Your task to perform on an android device: When is my next meeting? Image 0: 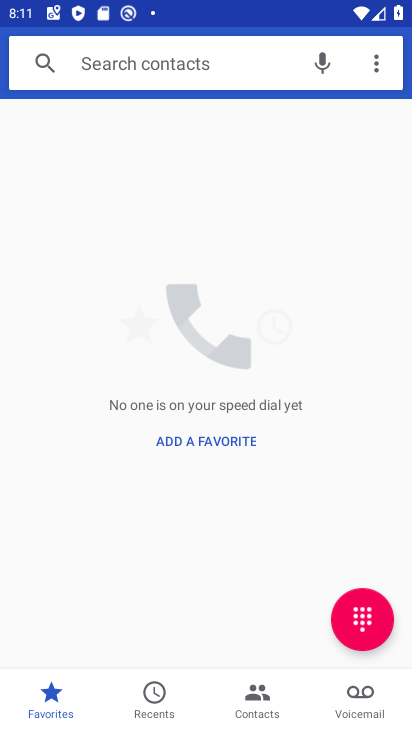
Step 0: press home button
Your task to perform on an android device: When is my next meeting? Image 1: 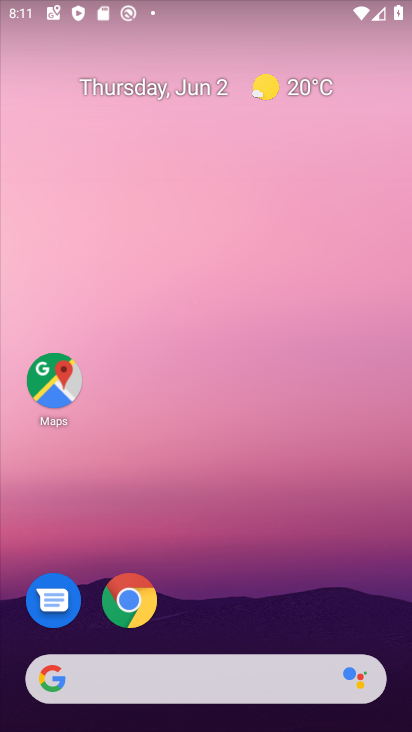
Step 1: drag from (361, 586) to (358, 162)
Your task to perform on an android device: When is my next meeting? Image 2: 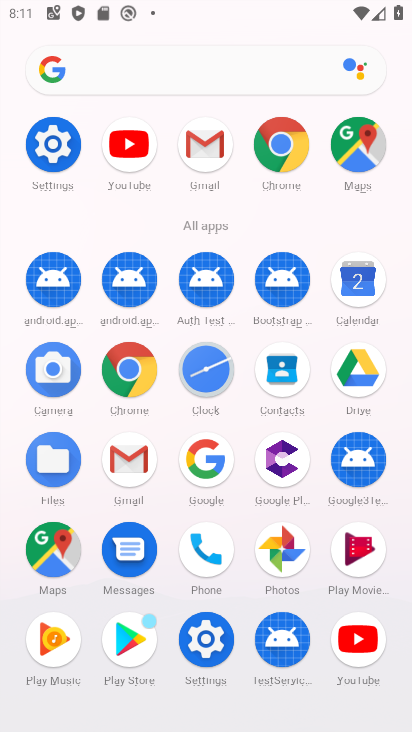
Step 2: click (357, 293)
Your task to perform on an android device: When is my next meeting? Image 3: 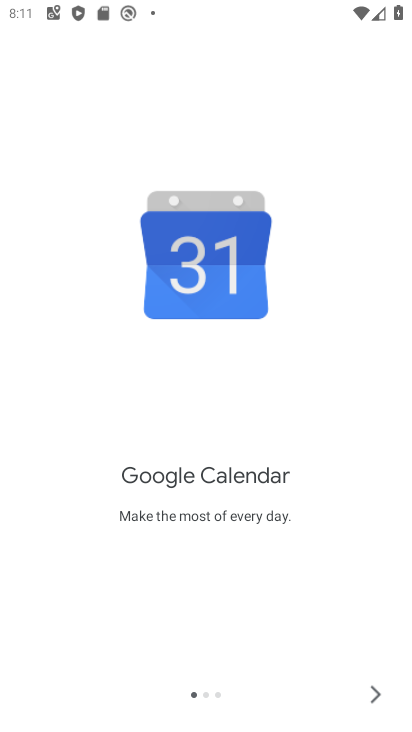
Step 3: click (368, 698)
Your task to perform on an android device: When is my next meeting? Image 4: 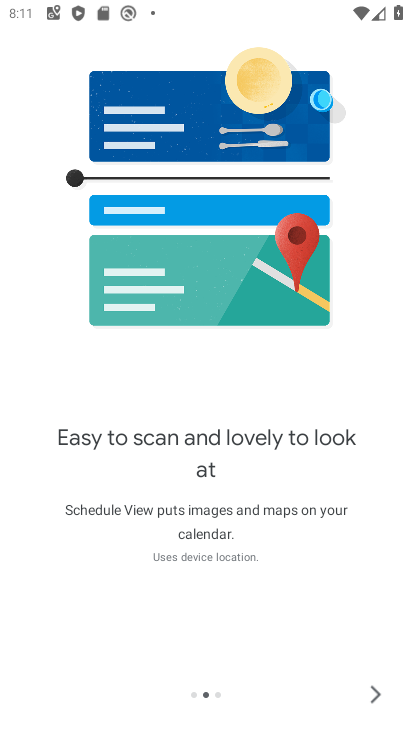
Step 4: click (368, 698)
Your task to perform on an android device: When is my next meeting? Image 5: 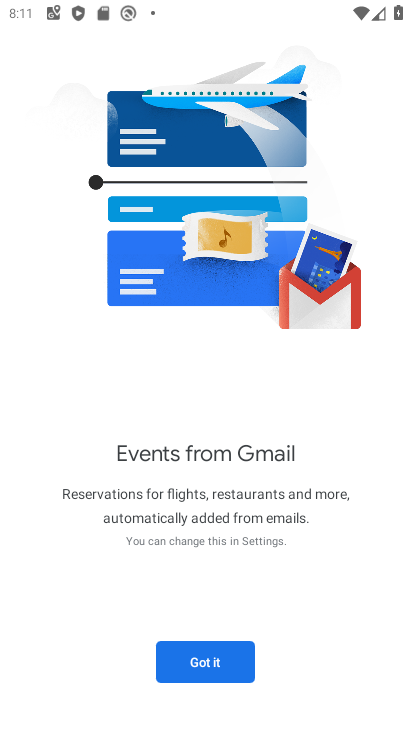
Step 5: click (242, 674)
Your task to perform on an android device: When is my next meeting? Image 6: 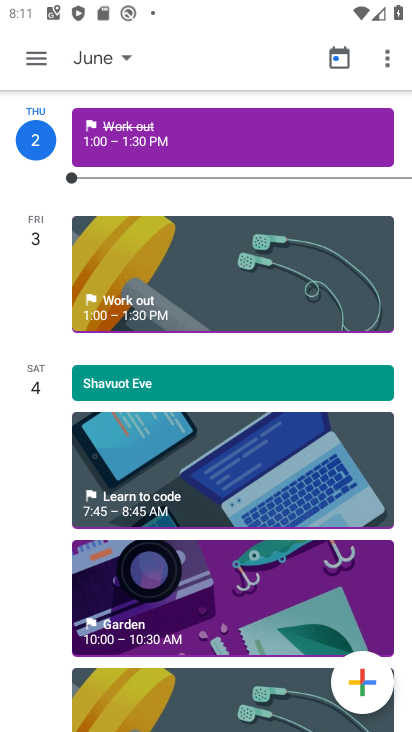
Step 6: click (172, 604)
Your task to perform on an android device: When is my next meeting? Image 7: 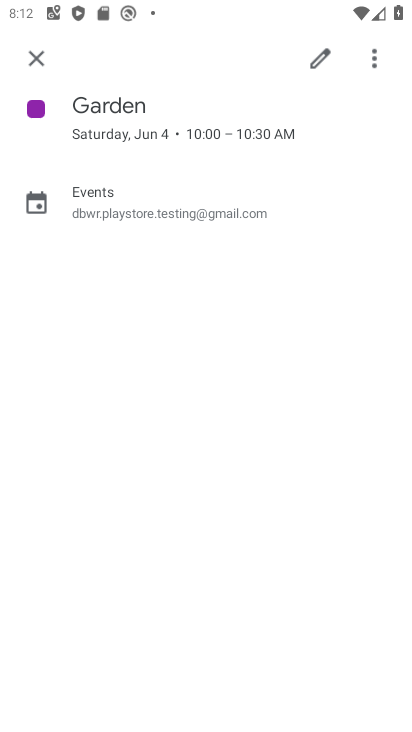
Step 7: task complete